Your task to perform on an android device: Open wifi settings Image 0: 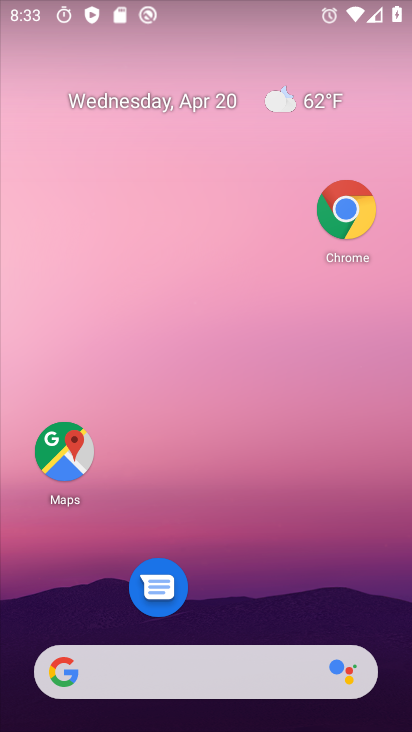
Step 0: drag from (219, 14) to (251, 537)
Your task to perform on an android device: Open wifi settings Image 1: 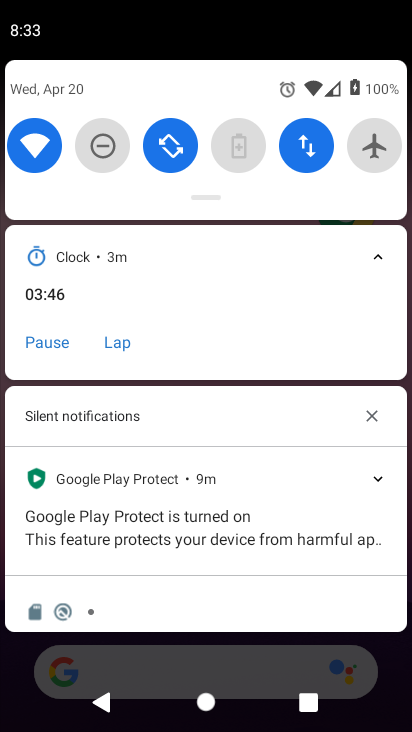
Step 1: click (40, 160)
Your task to perform on an android device: Open wifi settings Image 2: 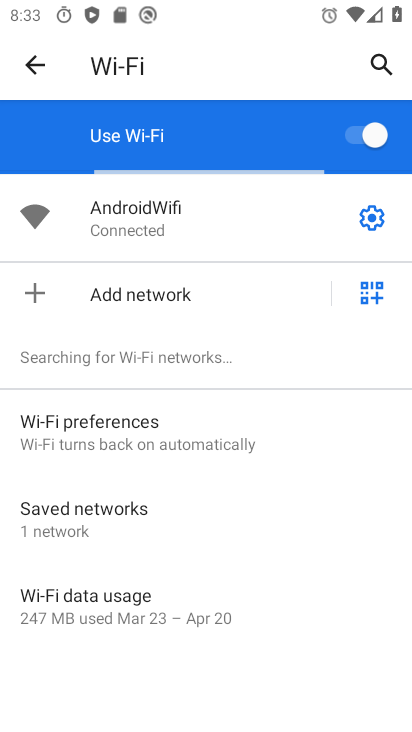
Step 2: task complete